Your task to perform on an android device: Open Google Maps and go to "Timeline" Image 0: 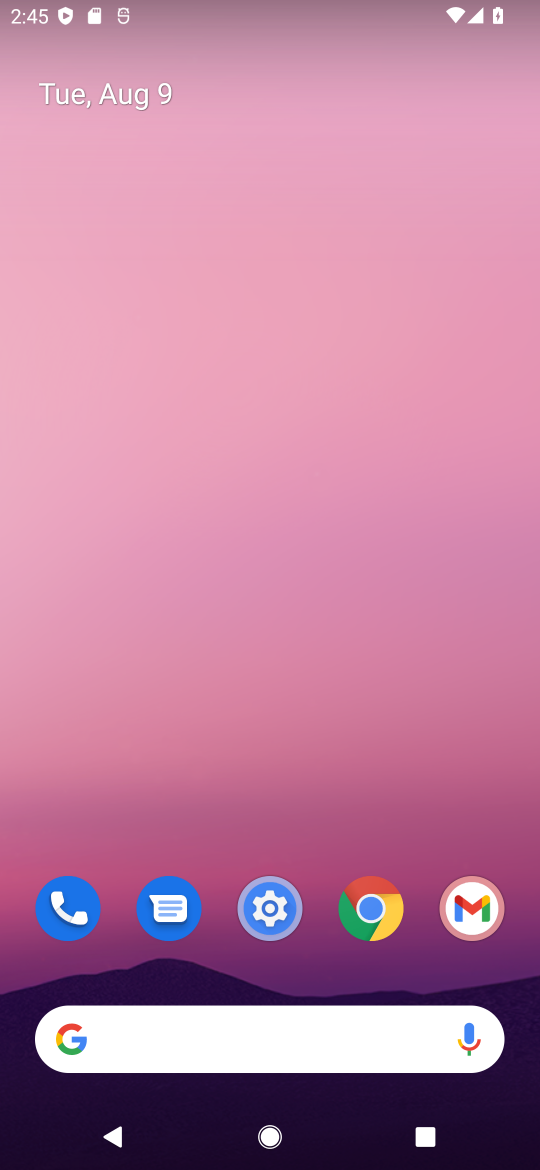
Step 0: drag from (287, 489) to (281, 155)
Your task to perform on an android device: Open Google Maps and go to "Timeline" Image 1: 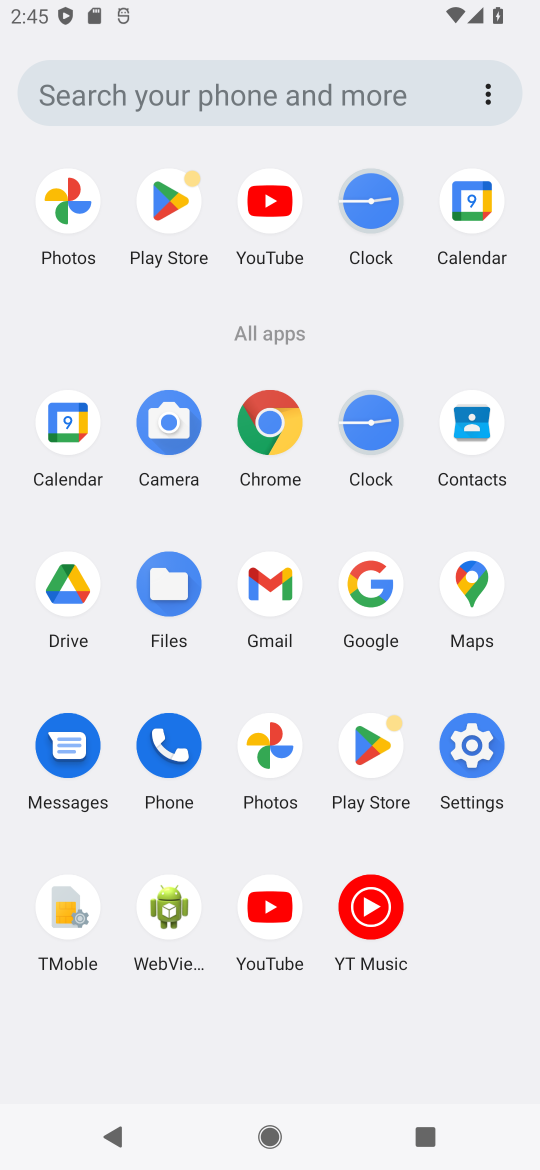
Step 1: click (468, 763)
Your task to perform on an android device: Open Google Maps and go to "Timeline" Image 2: 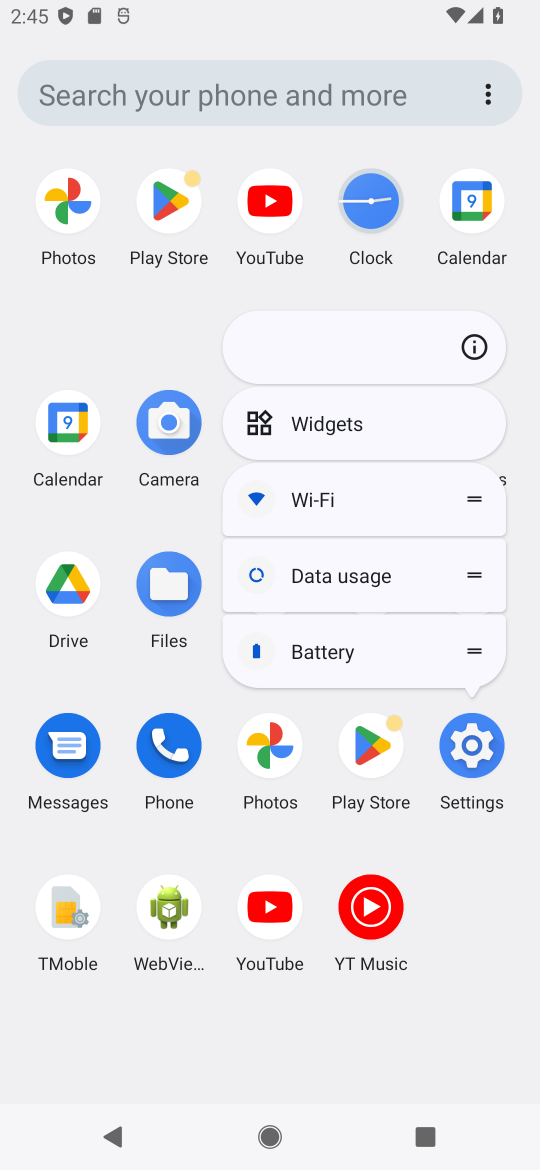
Step 2: click (183, 314)
Your task to perform on an android device: Open Google Maps and go to "Timeline" Image 3: 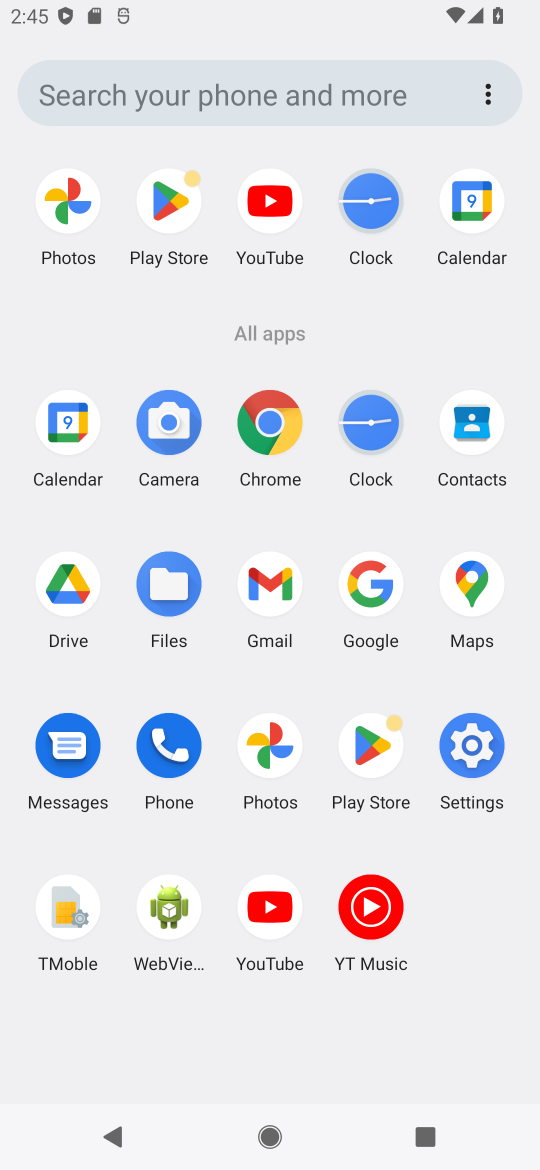
Step 3: click (476, 589)
Your task to perform on an android device: Open Google Maps and go to "Timeline" Image 4: 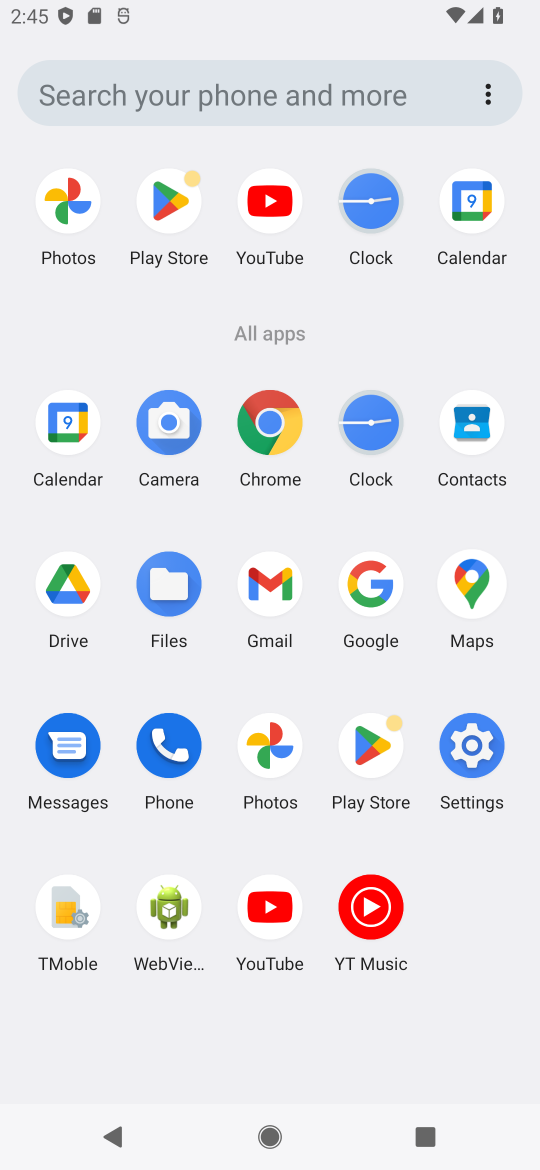
Step 4: click (475, 587)
Your task to perform on an android device: Open Google Maps and go to "Timeline" Image 5: 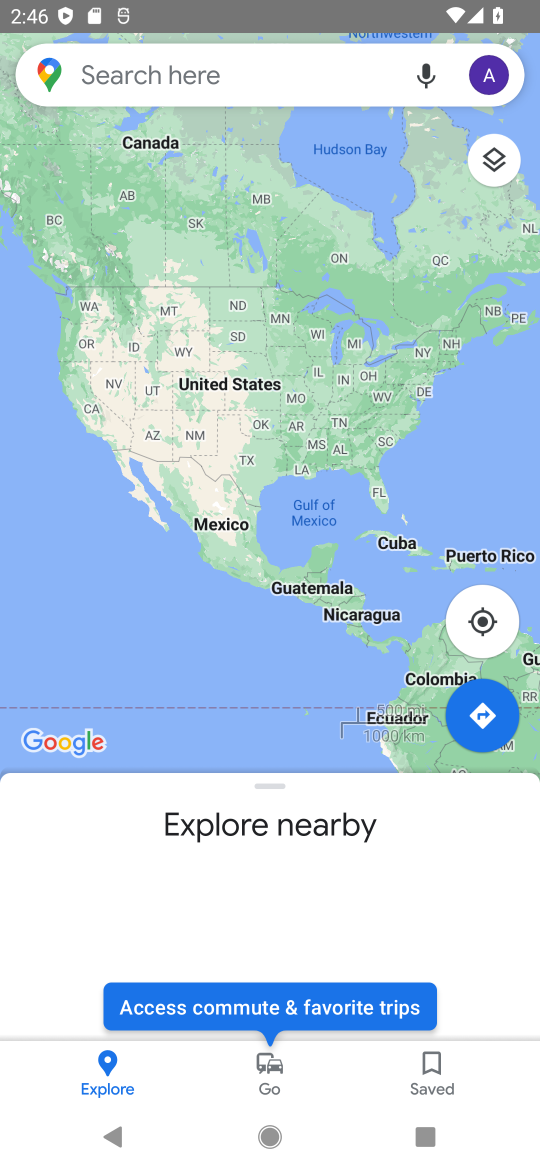
Step 5: click (61, 87)
Your task to perform on an android device: Open Google Maps and go to "Timeline" Image 6: 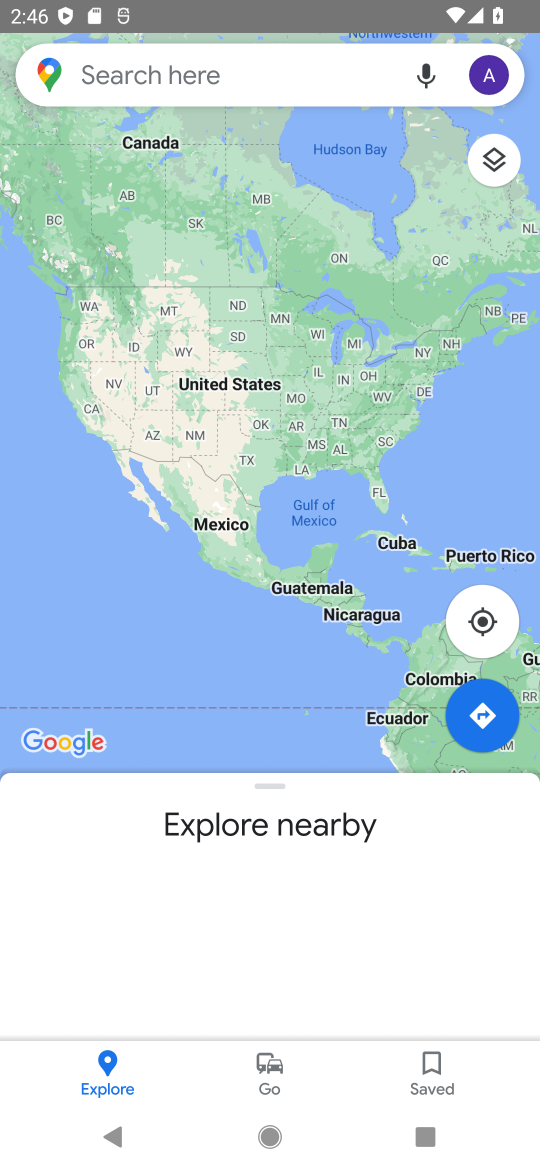
Step 6: click (86, 61)
Your task to perform on an android device: Open Google Maps and go to "Timeline" Image 7: 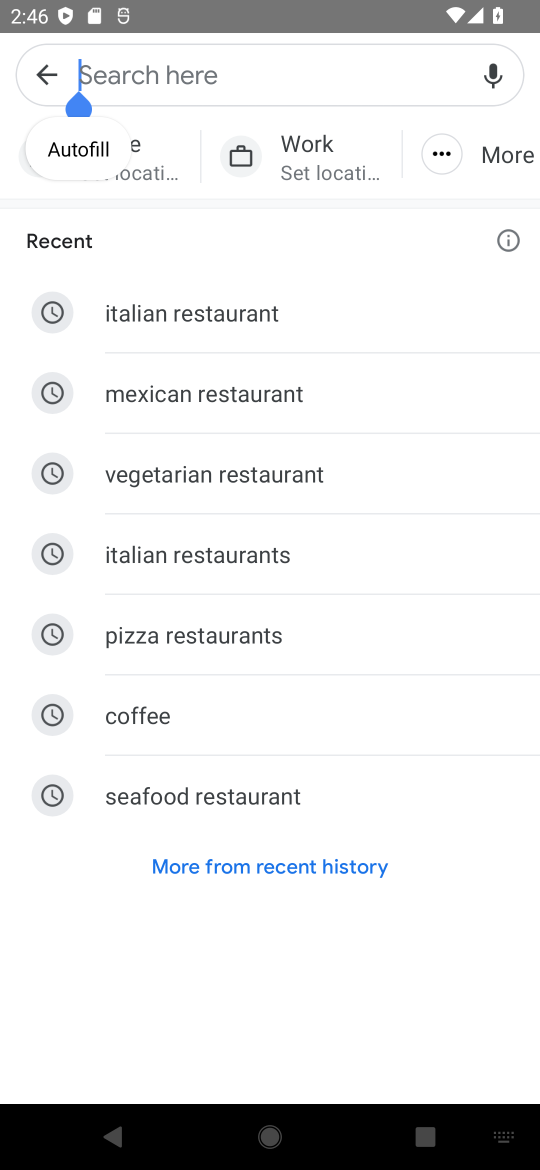
Step 7: click (39, 72)
Your task to perform on an android device: Open Google Maps and go to "Timeline" Image 8: 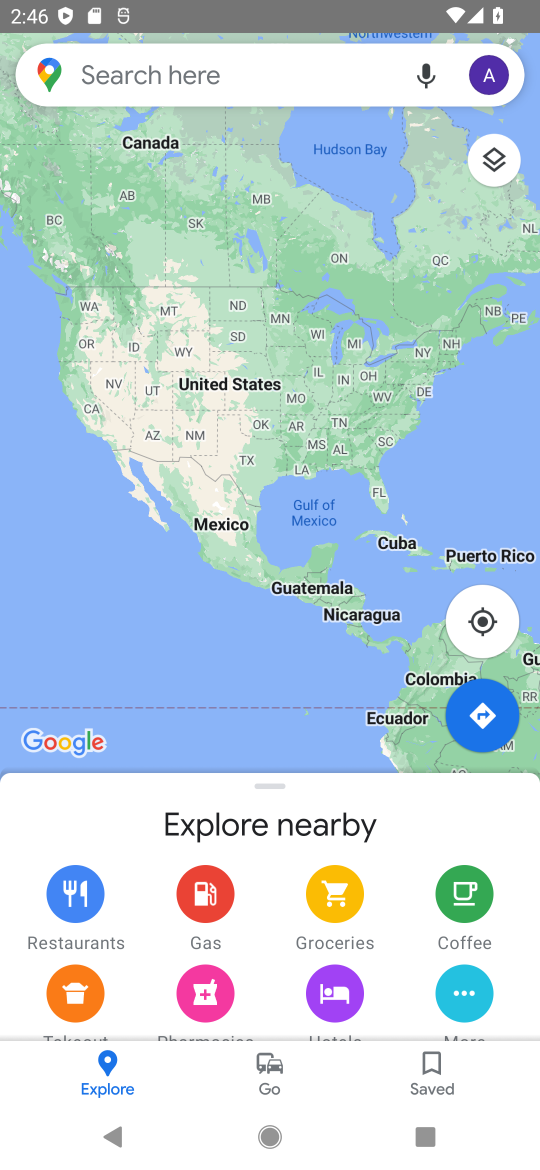
Step 8: click (502, 96)
Your task to perform on an android device: Open Google Maps and go to "Timeline" Image 9: 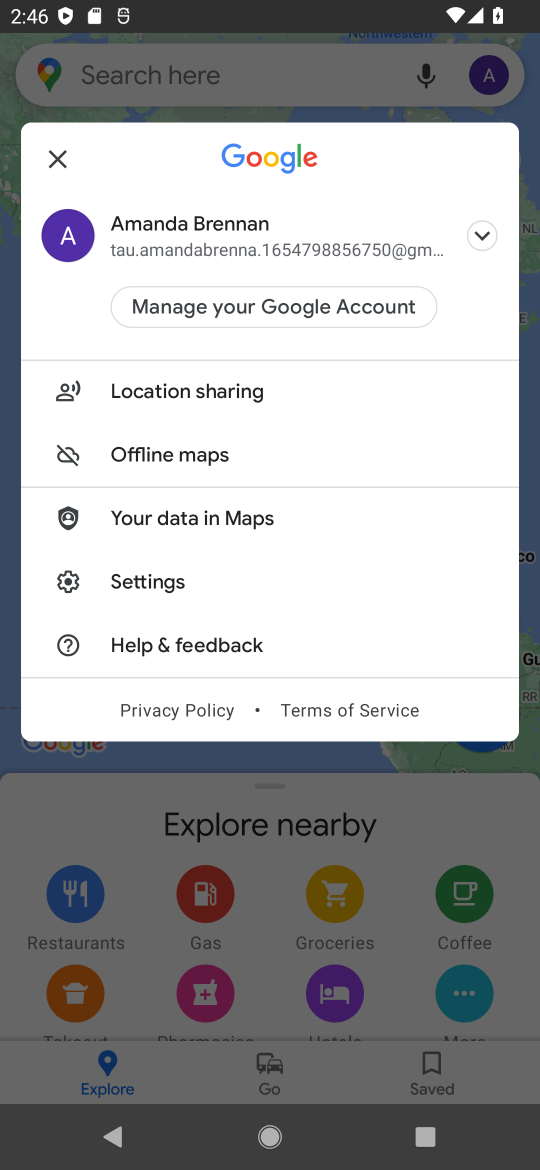
Step 9: click (146, 575)
Your task to perform on an android device: Open Google Maps and go to "Timeline" Image 10: 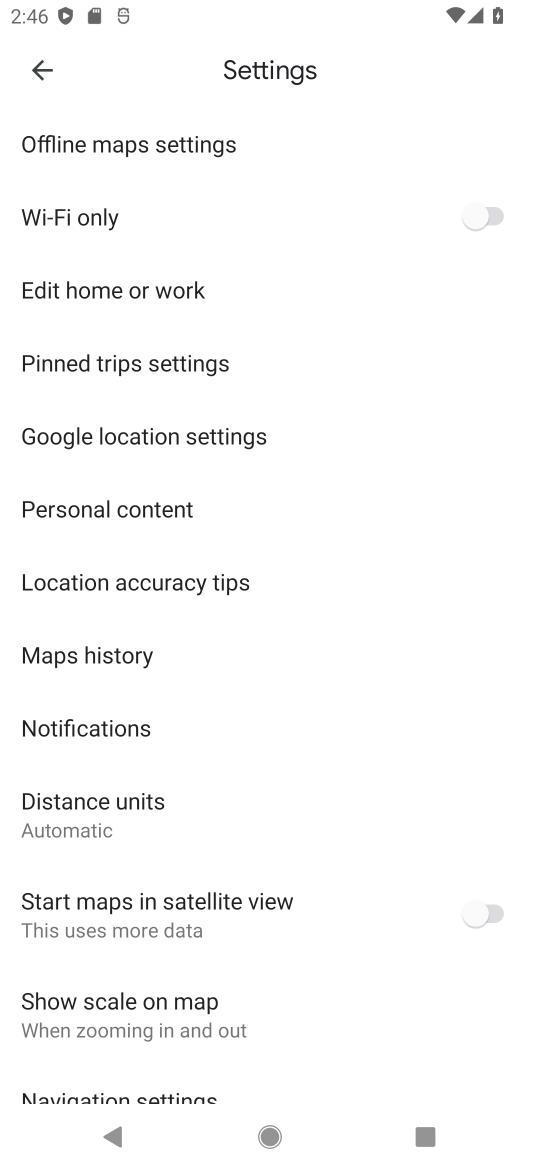
Step 10: click (41, 52)
Your task to perform on an android device: Open Google Maps and go to "Timeline" Image 11: 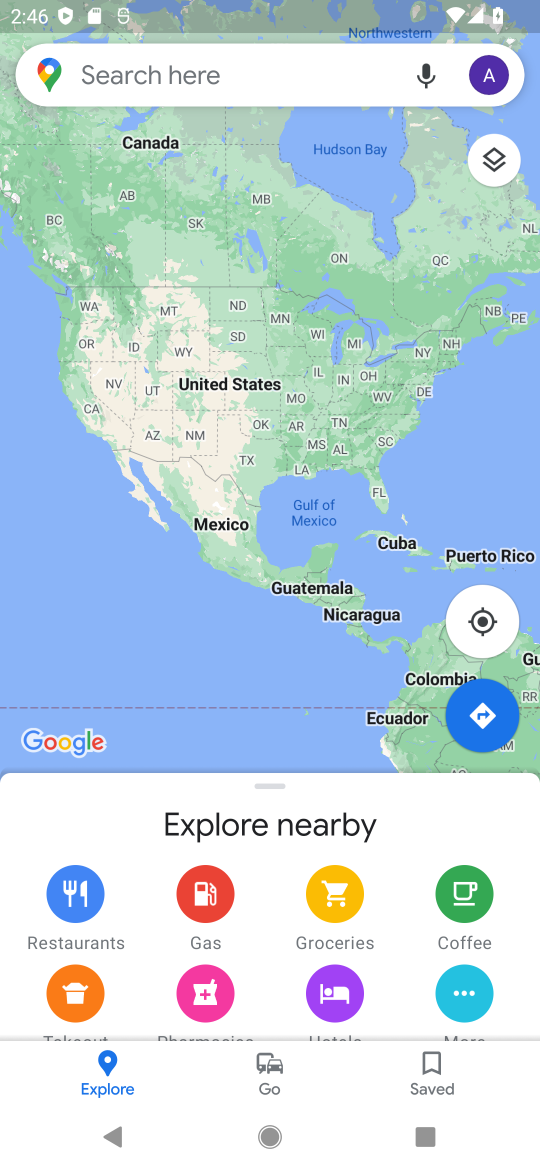
Step 11: click (461, 90)
Your task to perform on an android device: Open Google Maps and go to "Timeline" Image 12: 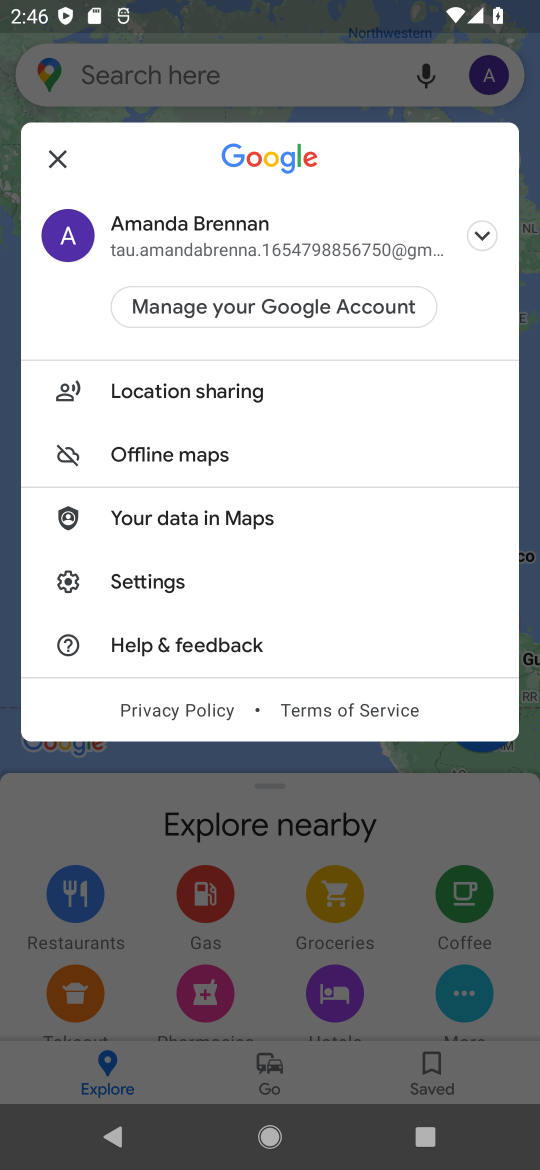
Step 12: click (293, 104)
Your task to perform on an android device: Open Google Maps and go to "Timeline" Image 13: 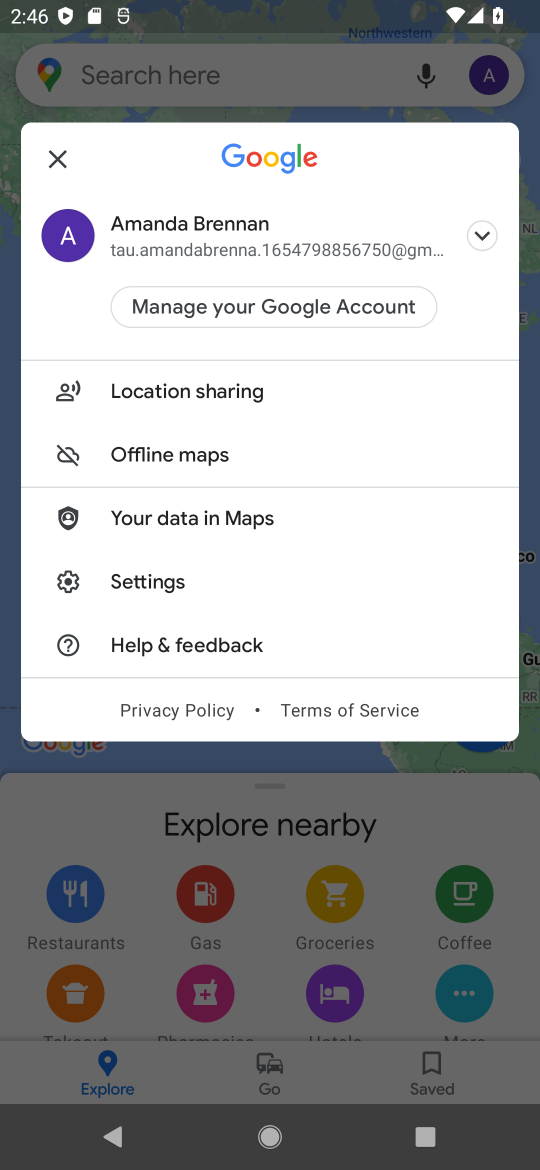
Step 13: click (293, 104)
Your task to perform on an android device: Open Google Maps and go to "Timeline" Image 14: 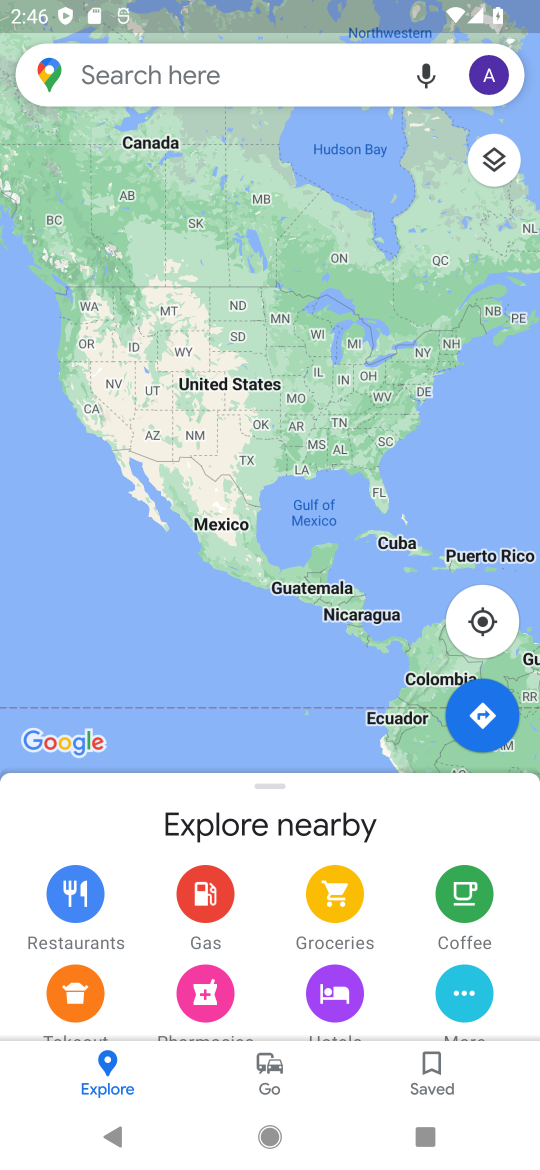
Step 14: click (499, 82)
Your task to perform on an android device: Open Google Maps and go to "Timeline" Image 15: 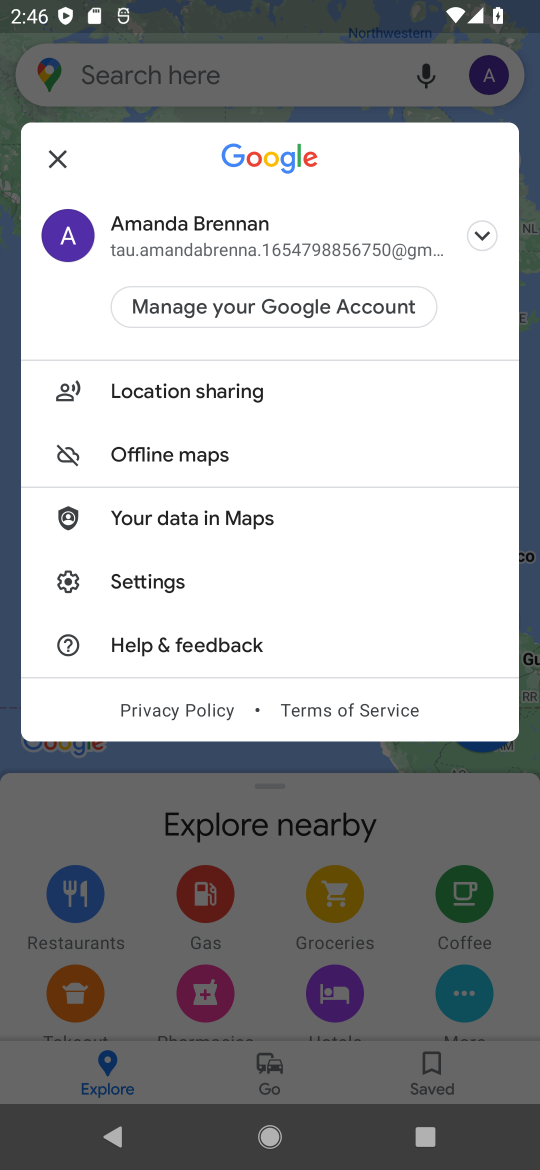
Step 15: click (48, 730)
Your task to perform on an android device: Open Google Maps and go to "Timeline" Image 16: 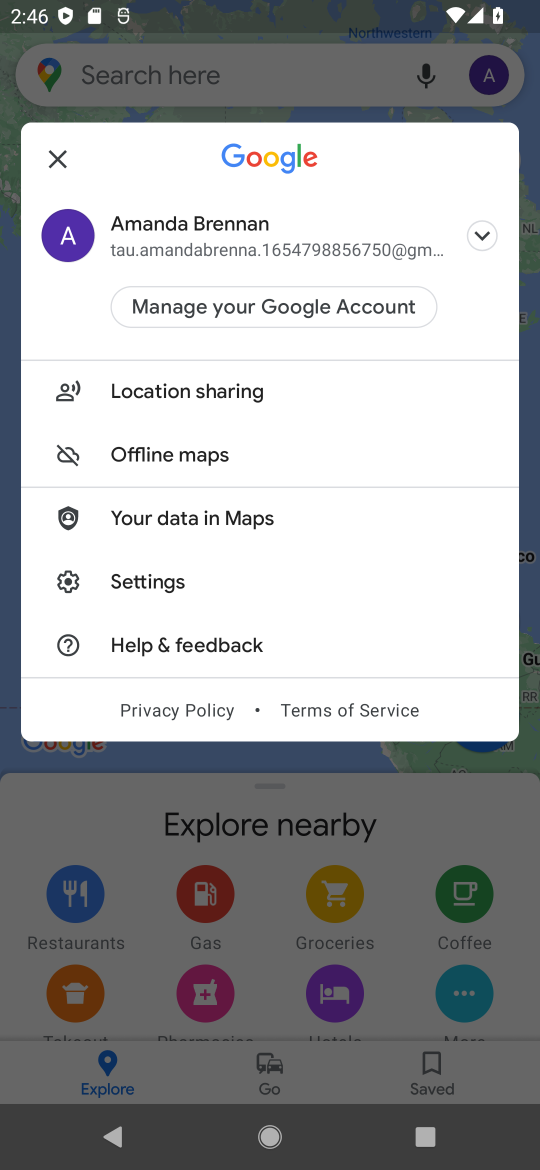
Step 16: click (48, 738)
Your task to perform on an android device: Open Google Maps and go to "Timeline" Image 17: 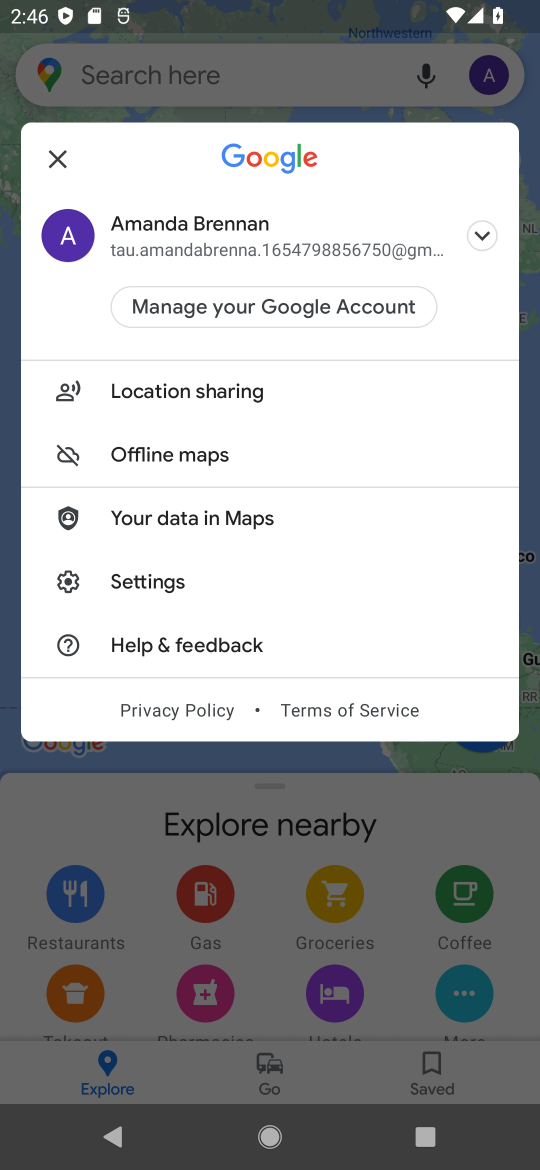
Step 17: click (48, 738)
Your task to perform on an android device: Open Google Maps and go to "Timeline" Image 18: 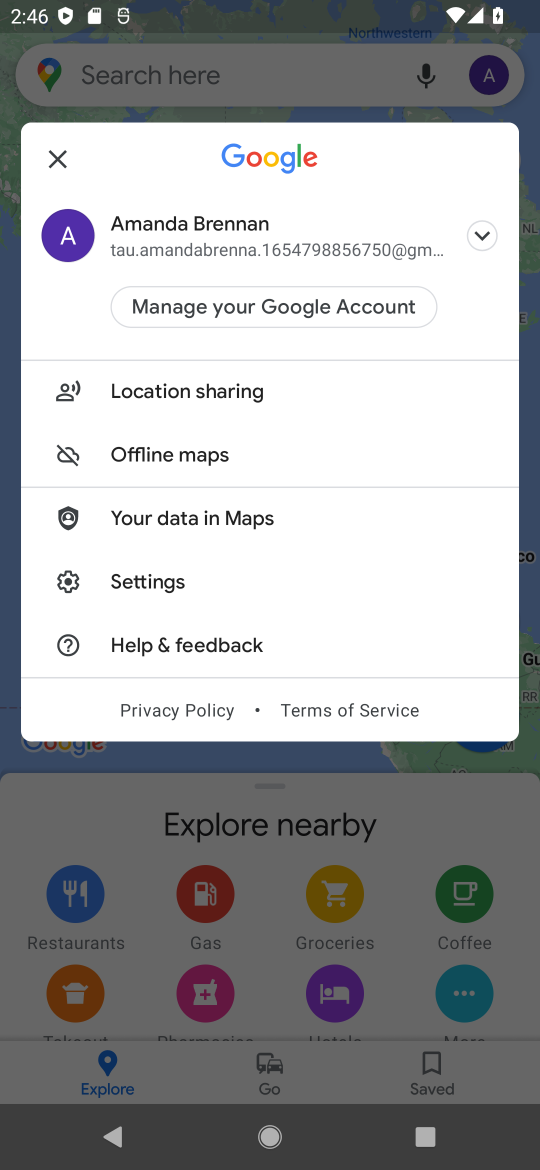
Step 18: click (10, 672)
Your task to perform on an android device: Open Google Maps and go to "Timeline" Image 19: 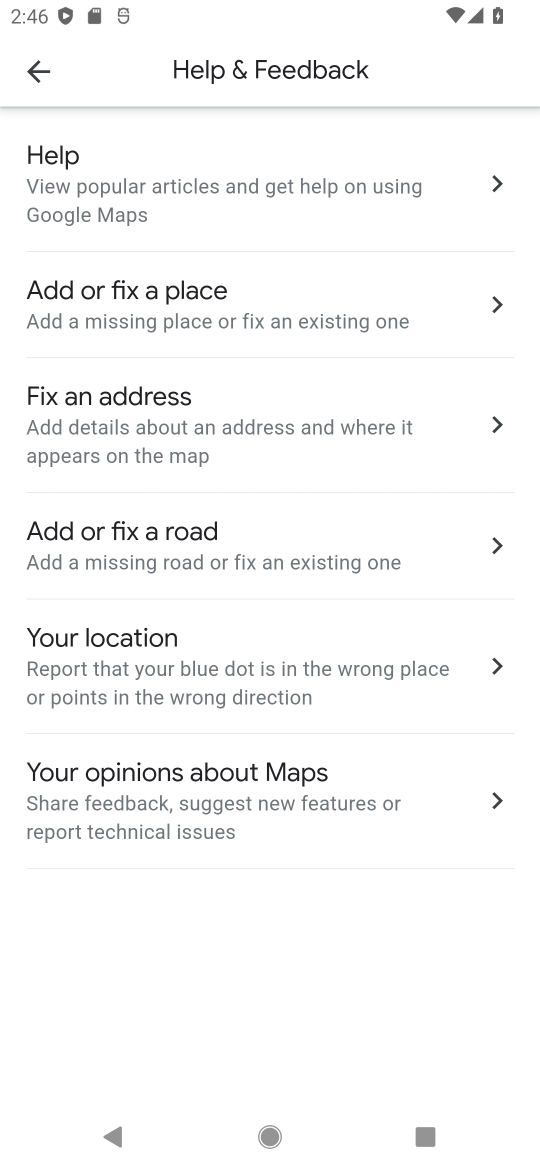
Step 19: click (48, 61)
Your task to perform on an android device: Open Google Maps and go to "Timeline" Image 20: 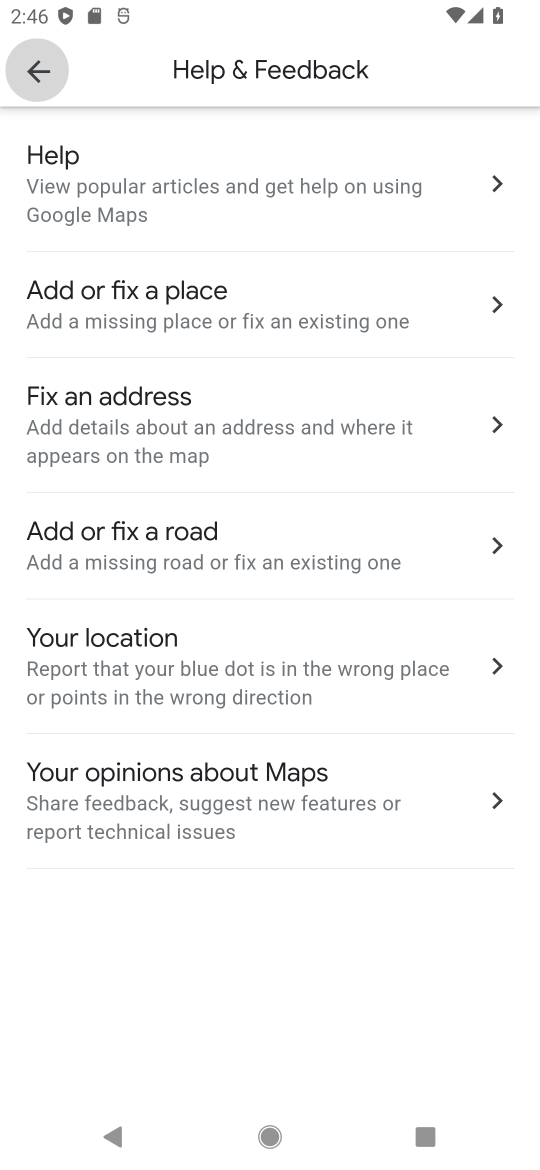
Step 20: click (42, 94)
Your task to perform on an android device: Open Google Maps and go to "Timeline" Image 21: 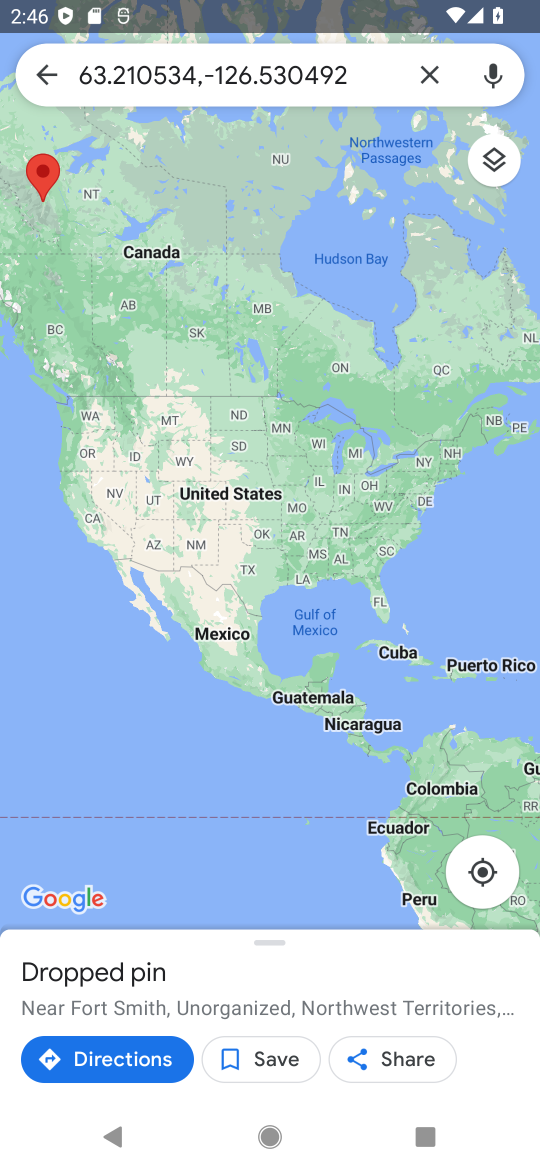
Step 21: task complete